Your task to perform on an android device: Open Chrome and go to settings Image 0: 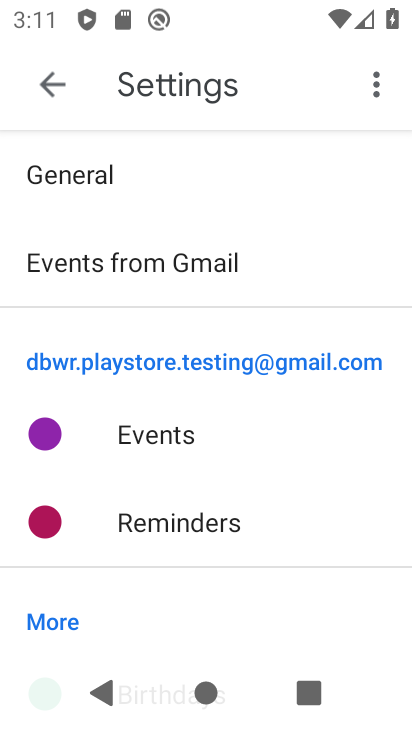
Step 0: press home button
Your task to perform on an android device: Open Chrome and go to settings Image 1: 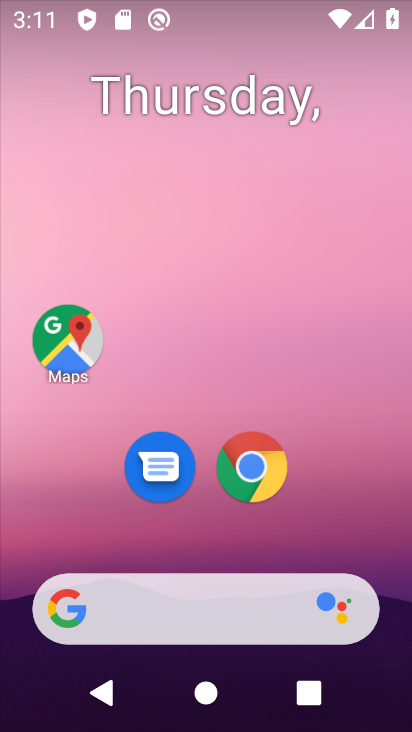
Step 1: click (270, 469)
Your task to perform on an android device: Open Chrome and go to settings Image 2: 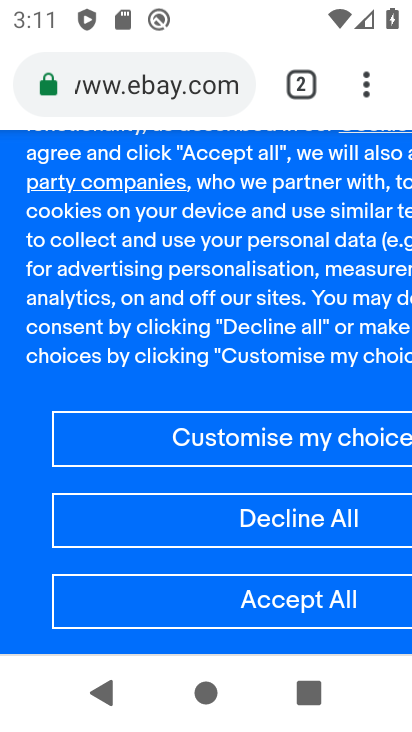
Step 2: click (369, 86)
Your task to perform on an android device: Open Chrome and go to settings Image 3: 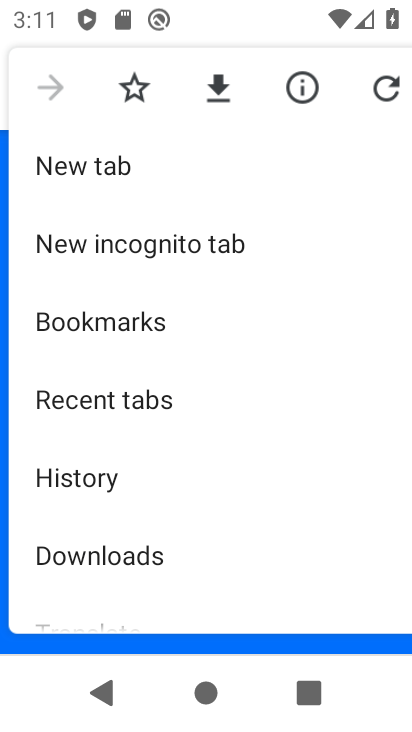
Step 3: drag from (130, 528) to (162, 121)
Your task to perform on an android device: Open Chrome and go to settings Image 4: 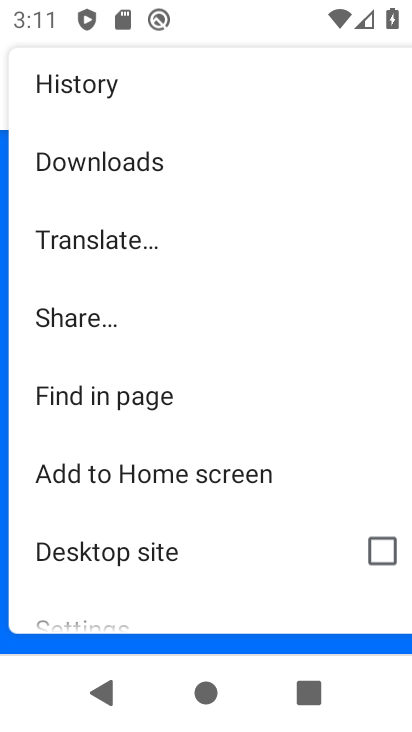
Step 4: drag from (117, 563) to (153, 94)
Your task to perform on an android device: Open Chrome and go to settings Image 5: 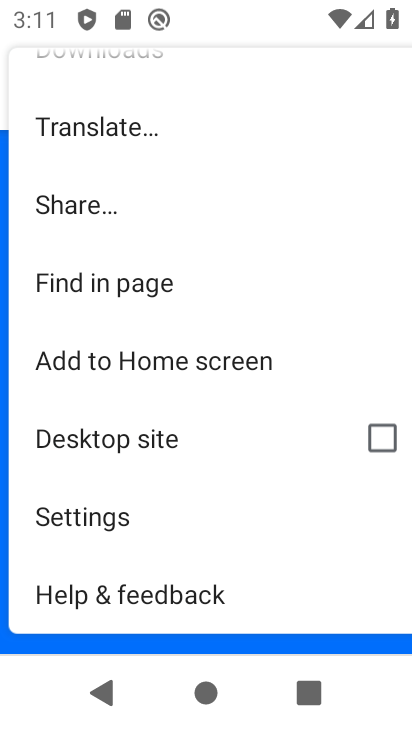
Step 5: click (82, 511)
Your task to perform on an android device: Open Chrome and go to settings Image 6: 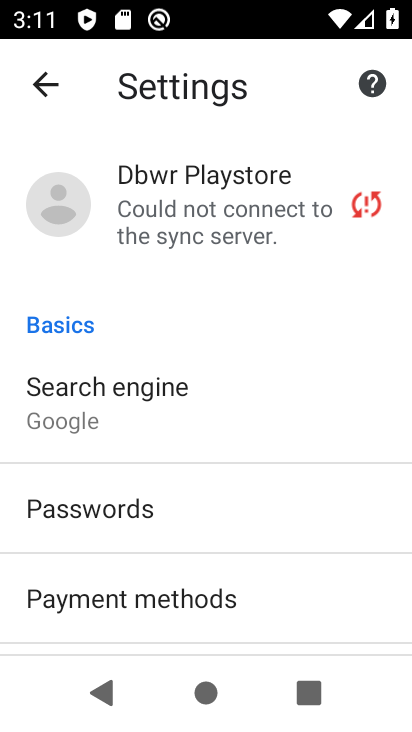
Step 6: task complete